Your task to perform on an android device: clear all cookies in the chrome app Image 0: 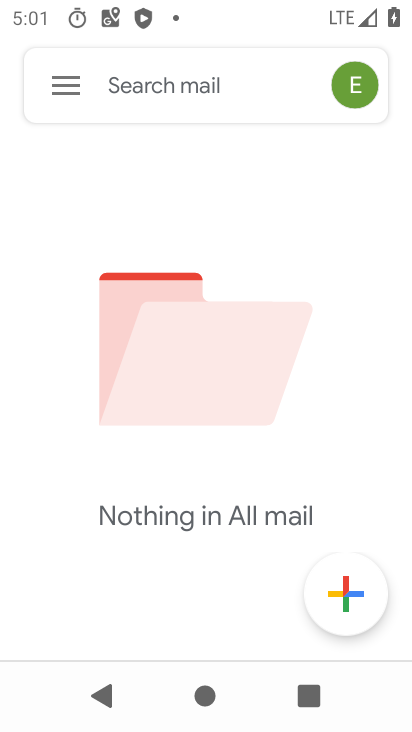
Step 0: press back button
Your task to perform on an android device: clear all cookies in the chrome app Image 1: 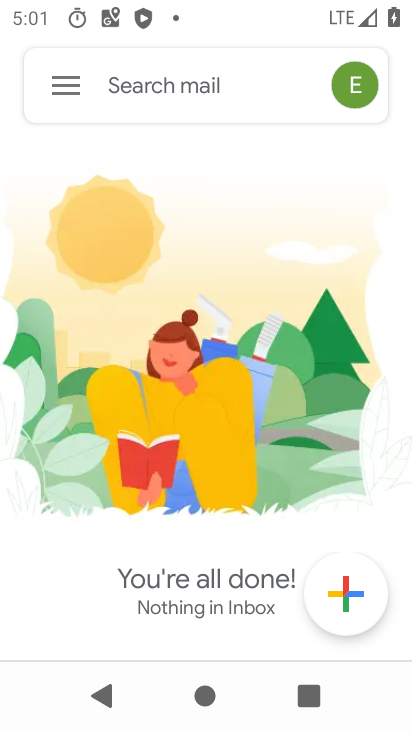
Step 1: press back button
Your task to perform on an android device: clear all cookies in the chrome app Image 2: 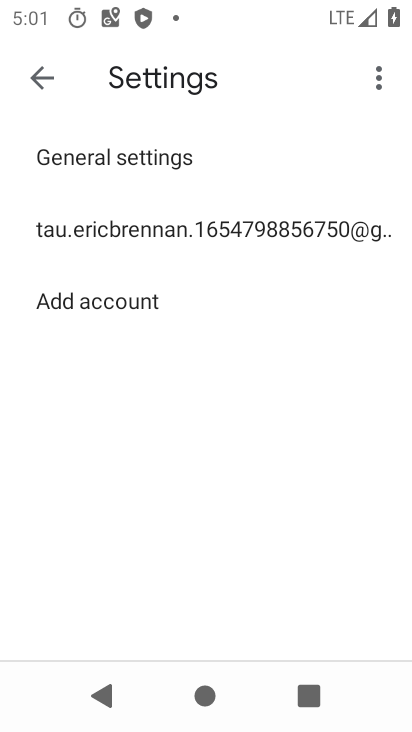
Step 2: press back button
Your task to perform on an android device: clear all cookies in the chrome app Image 3: 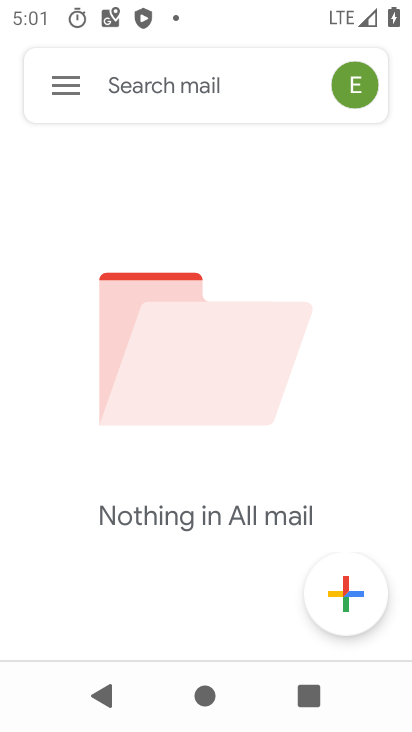
Step 3: press back button
Your task to perform on an android device: clear all cookies in the chrome app Image 4: 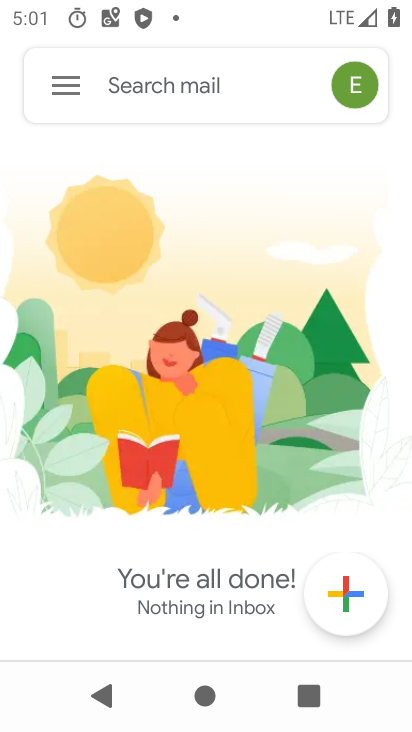
Step 4: press back button
Your task to perform on an android device: clear all cookies in the chrome app Image 5: 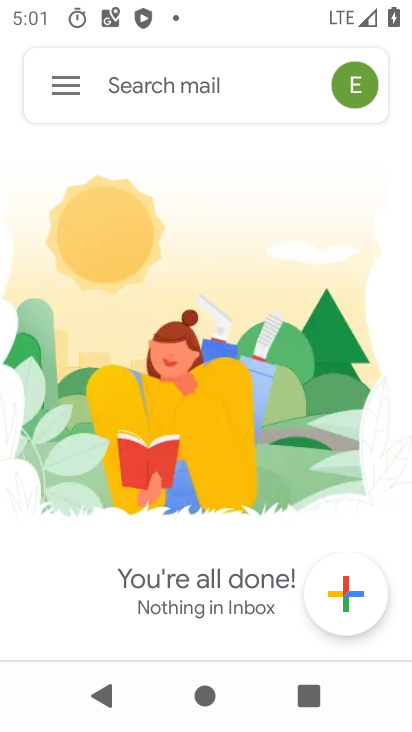
Step 5: press back button
Your task to perform on an android device: clear all cookies in the chrome app Image 6: 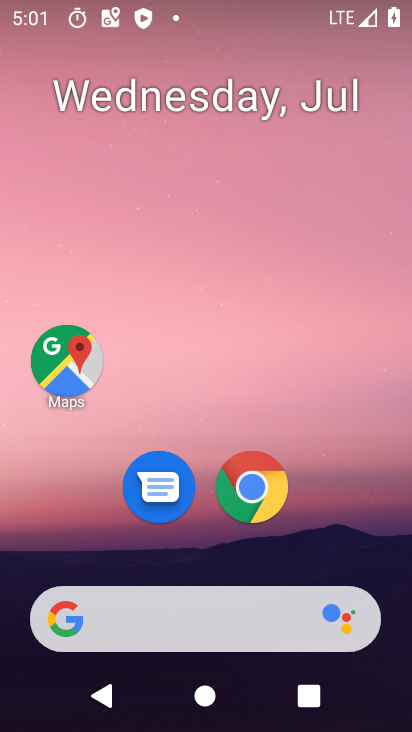
Step 6: click (253, 483)
Your task to perform on an android device: clear all cookies in the chrome app Image 7: 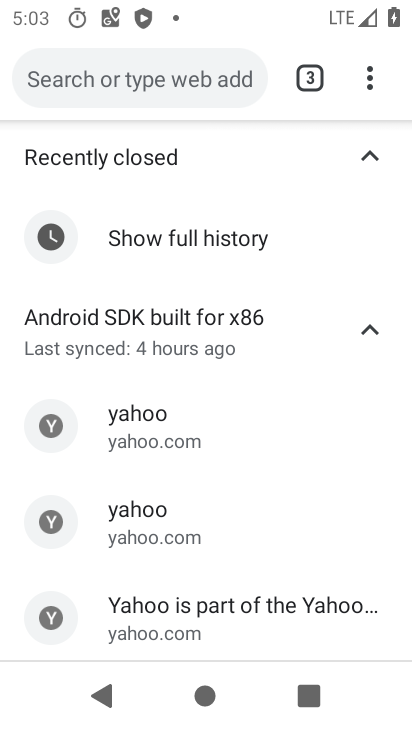
Step 7: drag from (362, 72) to (68, 520)
Your task to perform on an android device: clear all cookies in the chrome app Image 8: 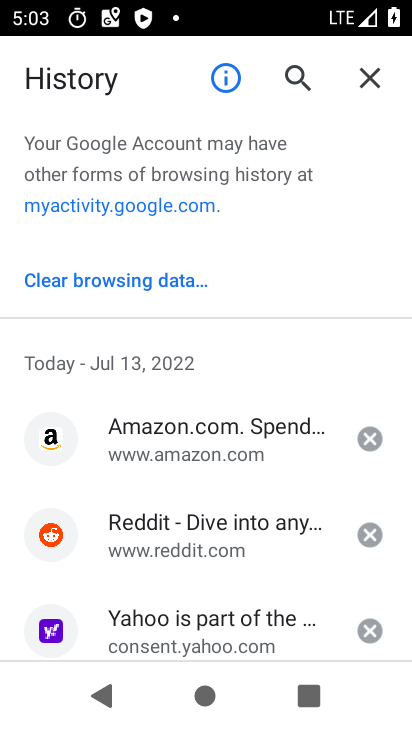
Step 8: click (85, 269)
Your task to perform on an android device: clear all cookies in the chrome app Image 9: 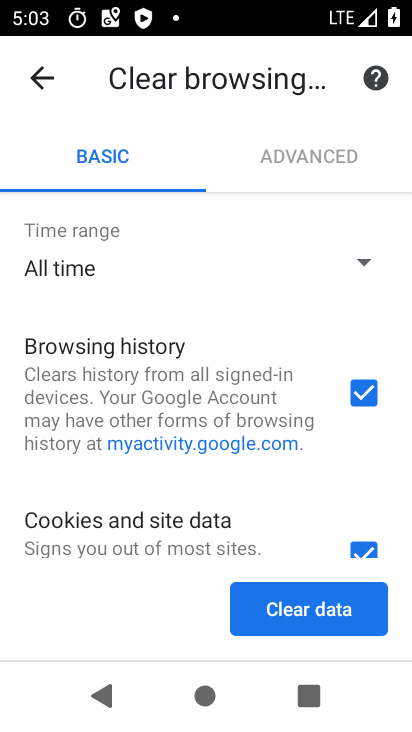
Step 9: drag from (184, 543) to (226, 301)
Your task to perform on an android device: clear all cookies in the chrome app Image 10: 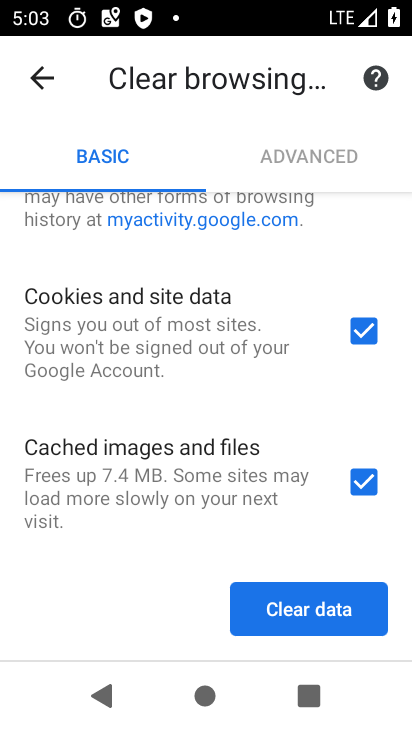
Step 10: drag from (279, 228) to (247, 395)
Your task to perform on an android device: clear all cookies in the chrome app Image 11: 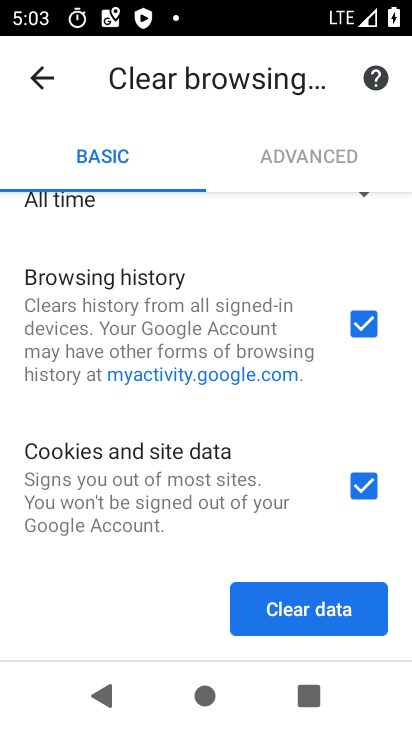
Step 11: drag from (178, 275) to (164, 432)
Your task to perform on an android device: clear all cookies in the chrome app Image 12: 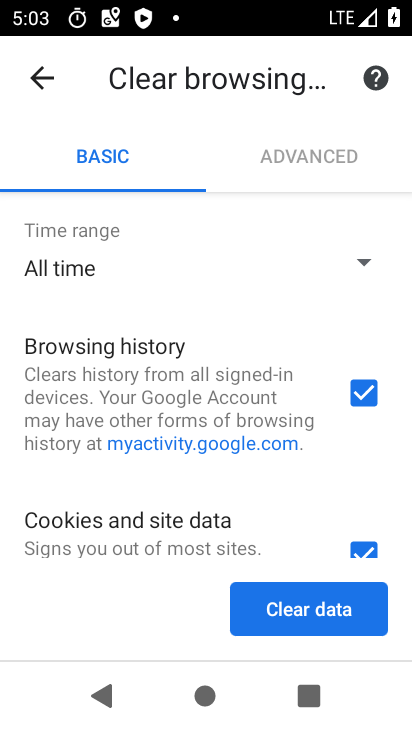
Step 12: drag from (177, 499) to (193, 371)
Your task to perform on an android device: clear all cookies in the chrome app Image 13: 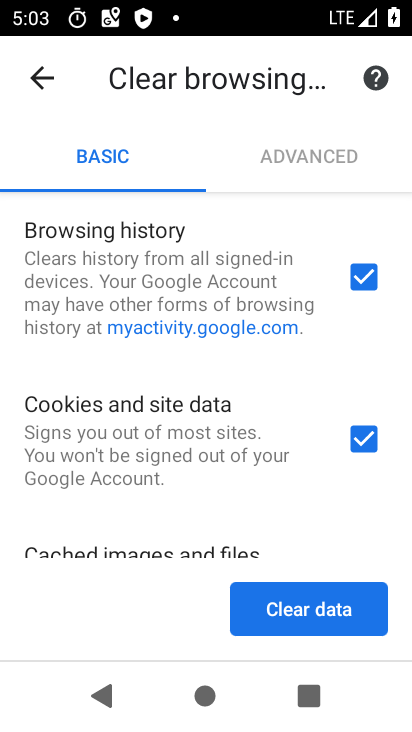
Step 13: click (365, 269)
Your task to perform on an android device: clear all cookies in the chrome app Image 14: 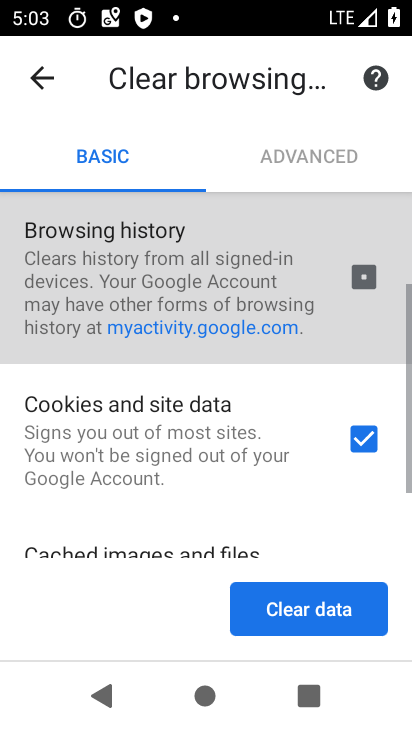
Step 14: drag from (135, 531) to (167, 426)
Your task to perform on an android device: clear all cookies in the chrome app Image 15: 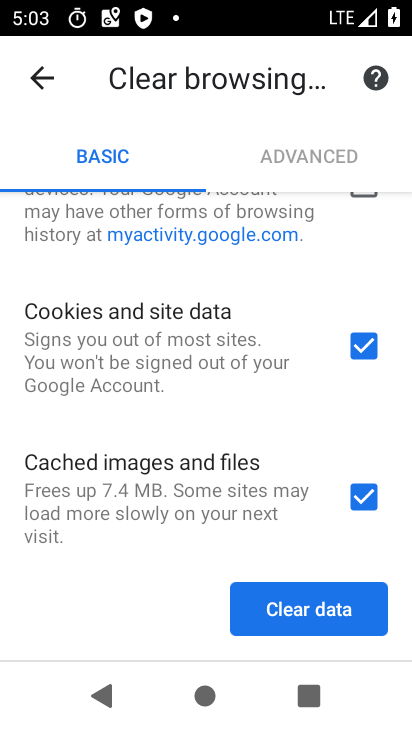
Step 15: click (359, 486)
Your task to perform on an android device: clear all cookies in the chrome app Image 16: 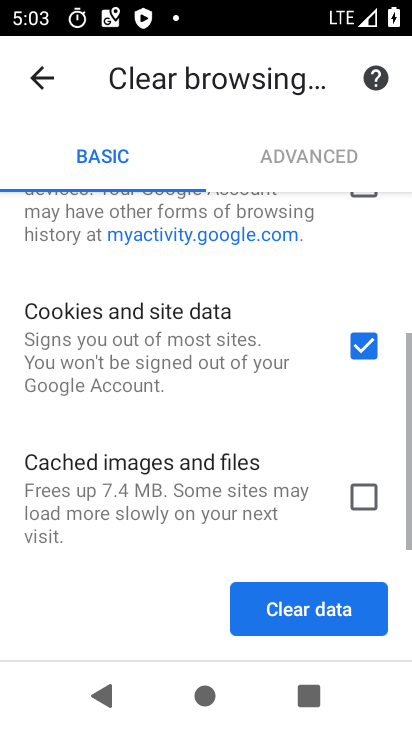
Step 16: click (287, 597)
Your task to perform on an android device: clear all cookies in the chrome app Image 17: 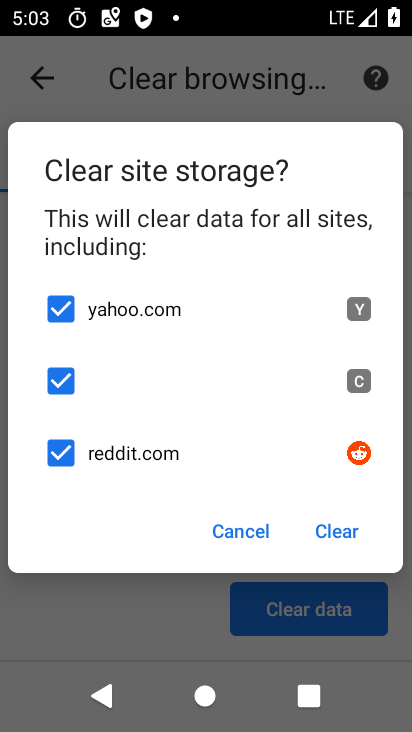
Step 17: click (334, 533)
Your task to perform on an android device: clear all cookies in the chrome app Image 18: 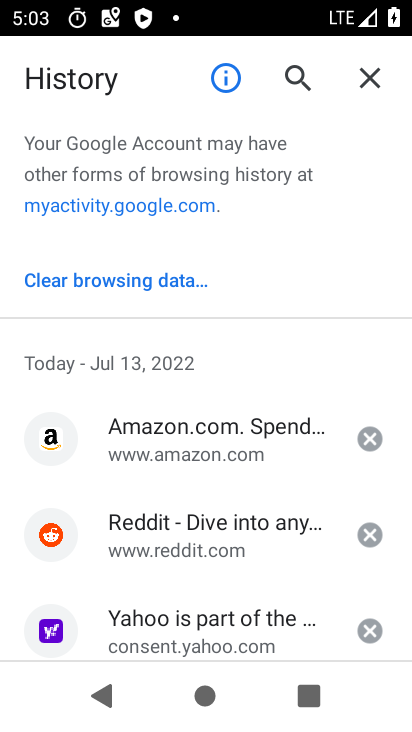
Step 18: task complete